Your task to perform on an android device: Go to privacy settings Image 0: 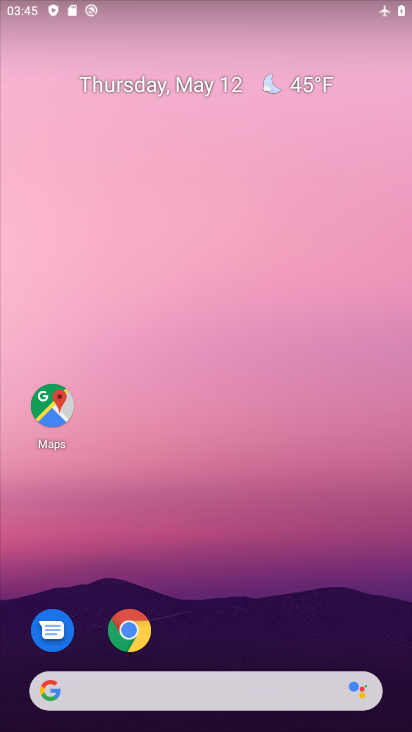
Step 0: drag from (215, 640) to (257, 184)
Your task to perform on an android device: Go to privacy settings Image 1: 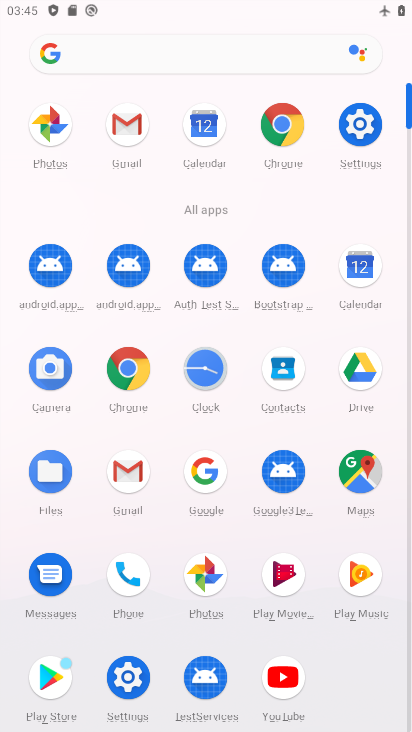
Step 1: click (147, 698)
Your task to perform on an android device: Go to privacy settings Image 2: 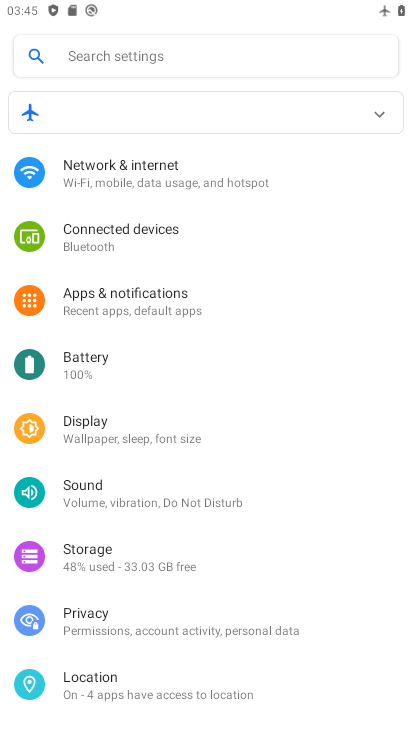
Step 2: click (103, 609)
Your task to perform on an android device: Go to privacy settings Image 3: 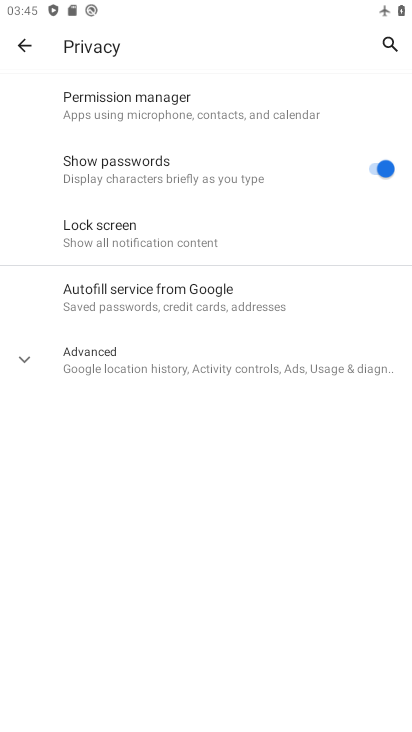
Step 3: task complete